Your task to perform on an android device: toggle translation in the chrome app Image 0: 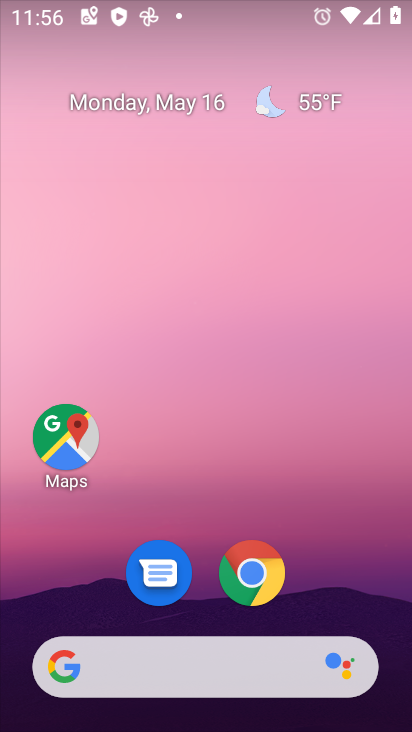
Step 0: click (260, 567)
Your task to perform on an android device: toggle translation in the chrome app Image 1: 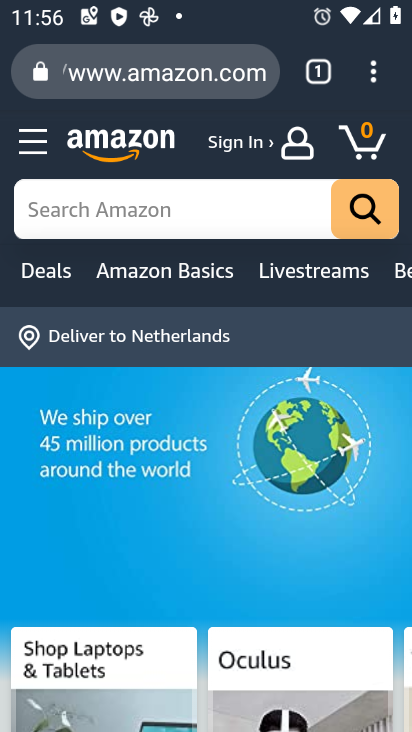
Step 1: click (379, 67)
Your task to perform on an android device: toggle translation in the chrome app Image 2: 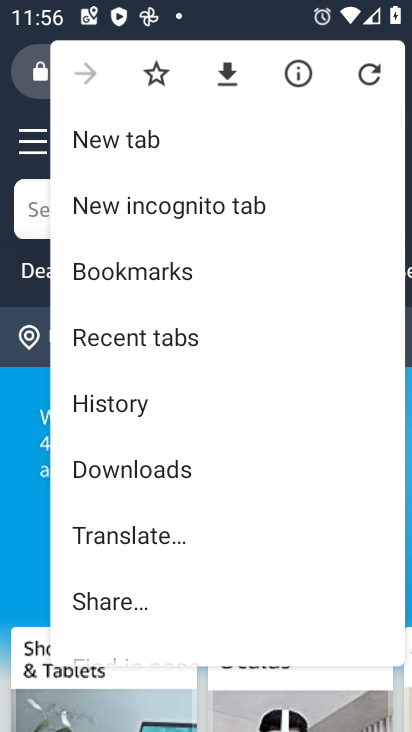
Step 2: drag from (235, 606) to (182, 328)
Your task to perform on an android device: toggle translation in the chrome app Image 3: 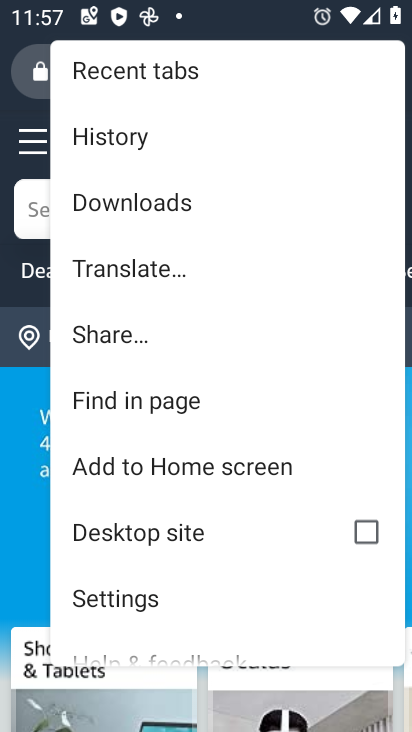
Step 3: drag from (237, 565) to (203, 237)
Your task to perform on an android device: toggle translation in the chrome app Image 4: 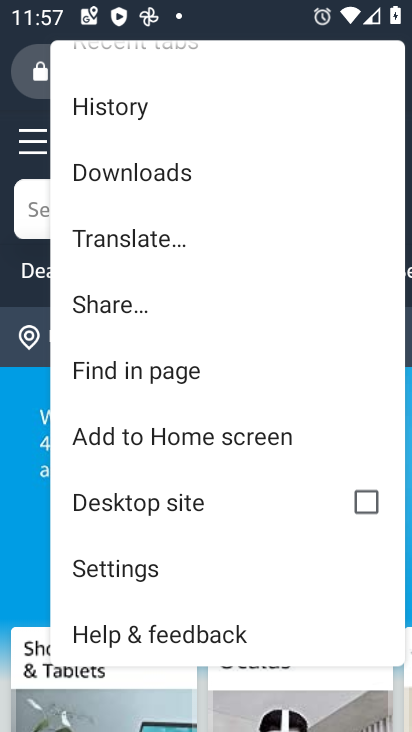
Step 4: click (151, 572)
Your task to perform on an android device: toggle translation in the chrome app Image 5: 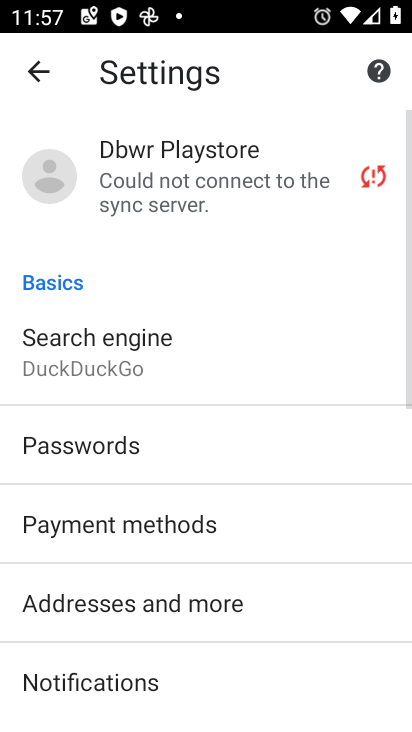
Step 5: drag from (268, 516) to (252, 106)
Your task to perform on an android device: toggle translation in the chrome app Image 6: 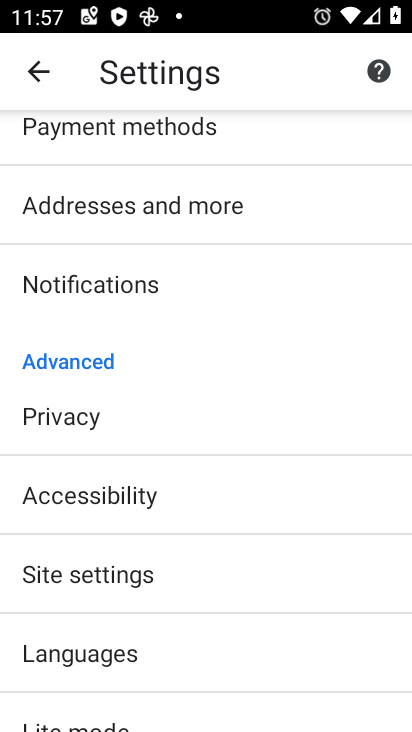
Step 6: click (130, 643)
Your task to perform on an android device: toggle translation in the chrome app Image 7: 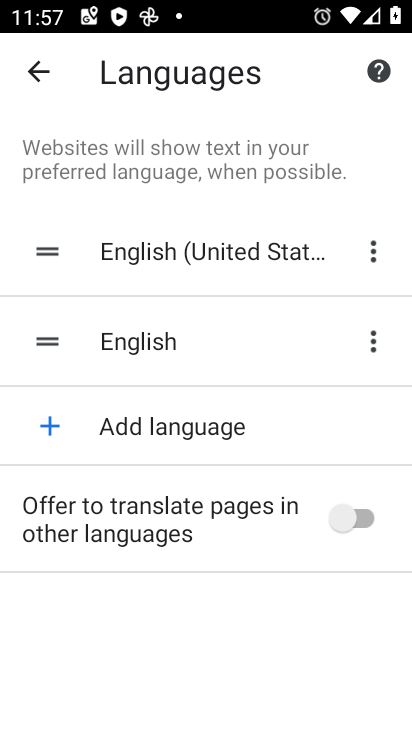
Step 7: click (341, 519)
Your task to perform on an android device: toggle translation in the chrome app Image 8: 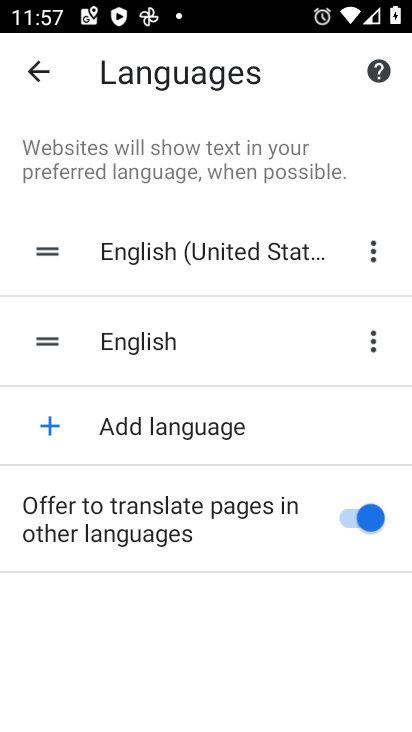
Step 8: task complete